Your task to perform on an android device: turn pop-ups off in chrome Image 0: 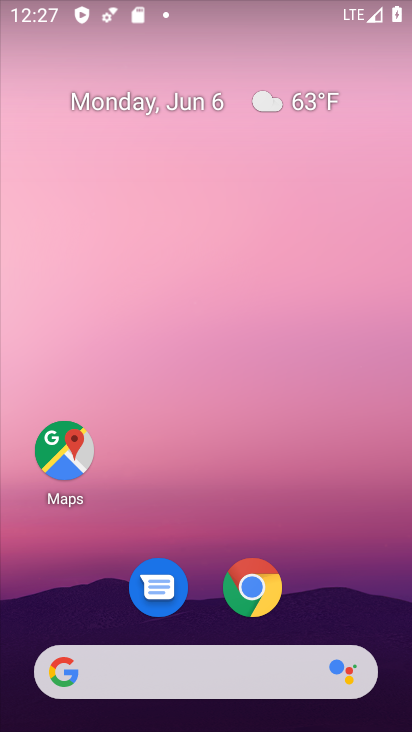
Step 0: click (261, 576)
Your task to perform on an android device: turn pop-ups off in chrome Image 1: 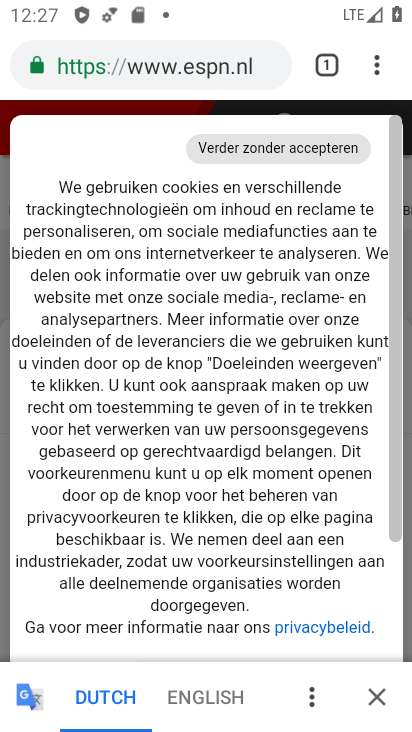
Step 1: click (384, 75)
Your task to perform on an android device: turn pop-ups off in chrome Image 2: 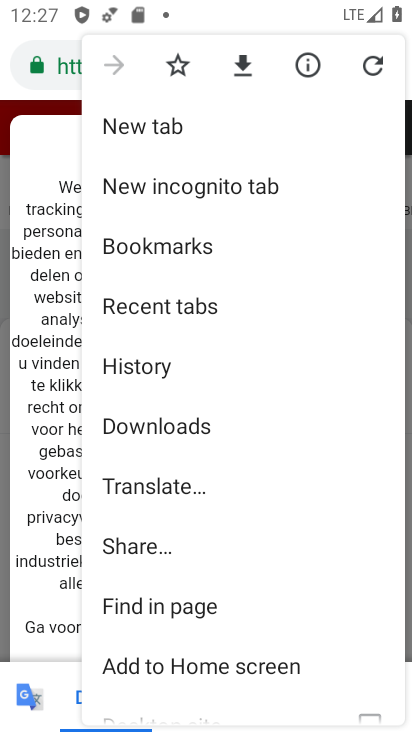
Step 2: drag from (172, 647) to (156, 250)
Your task to perform on an android device: turn pop-ups off in chrome Image 3: 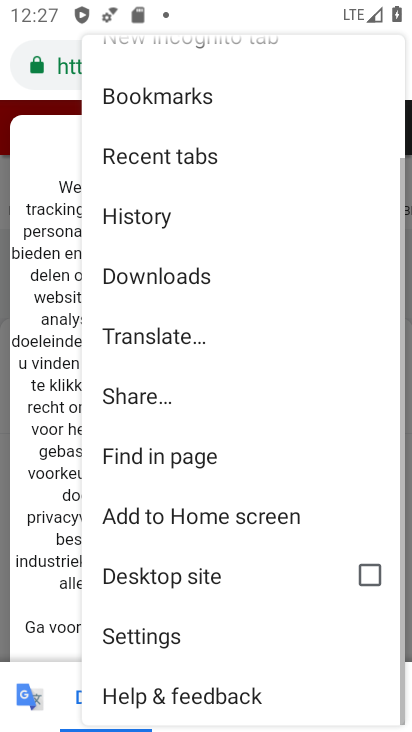
Step 3: click (170, 636)
Your task to perform on an android device: turn pop-ups off in chrome Image 4: 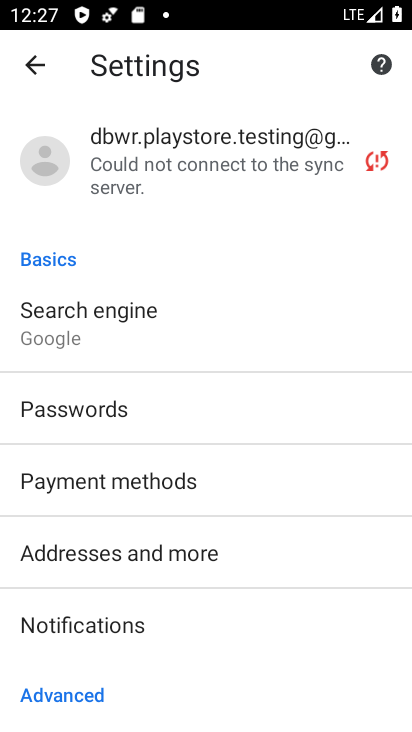
Step 4: drag from (200, 654) to (183, 351)
Your task to perform on an android device: turn pop-ups off in chrome Image 5: 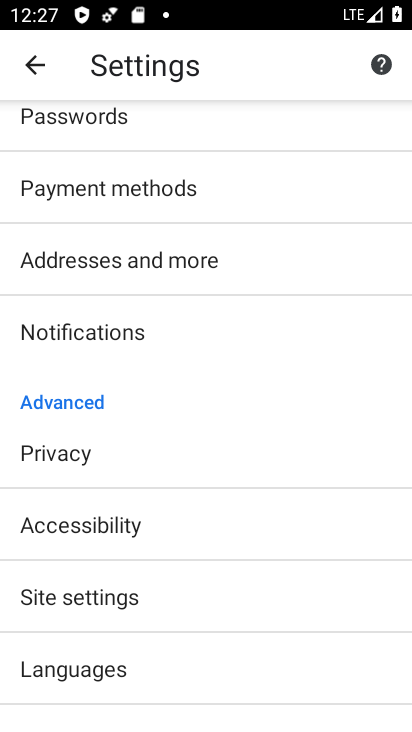
Step 5: drag from (224, 620) to (212, 307)
Your task to perform on an android device: turn pop-ups off in chrome Image 6: 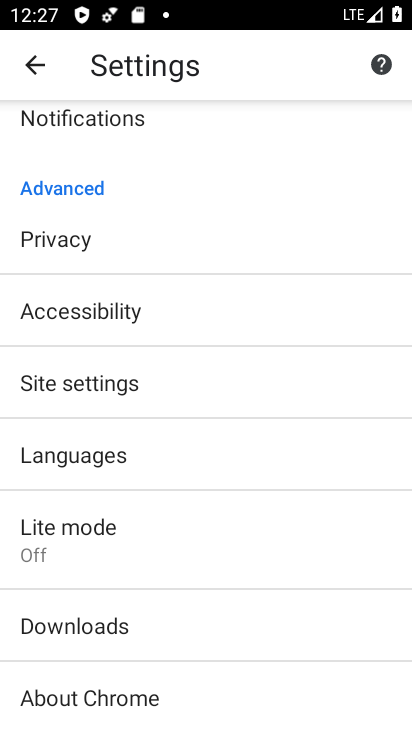
Step 6: click (200, 382)
Your task to perform on an android device: turn pop-ups off in chrome Image 7: 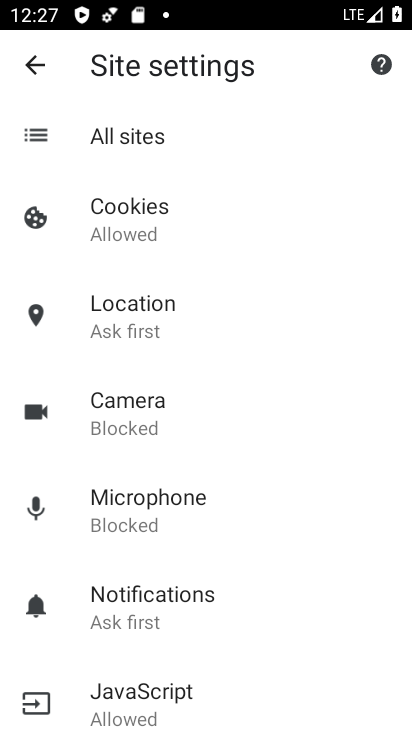
Step 7: drag from (223, 632) to (197, 349)
Your task to perform on an android device: turn pop-ups off in chrome Image 8: 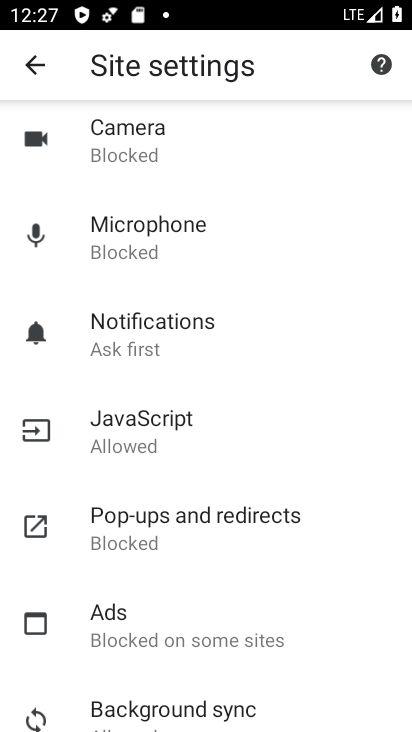
Step 8: click (224, 532)
Your task to perform on an android device: turn pop-ups off in chrome Image 9: 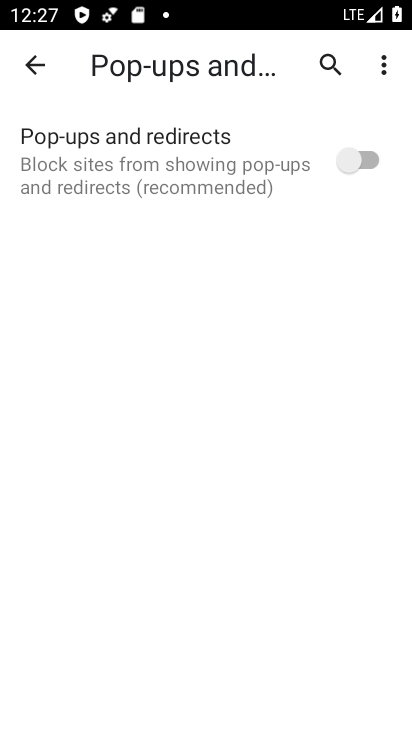
Step 9: task complete